Your task to perform on an android device: add a contact Image 0: 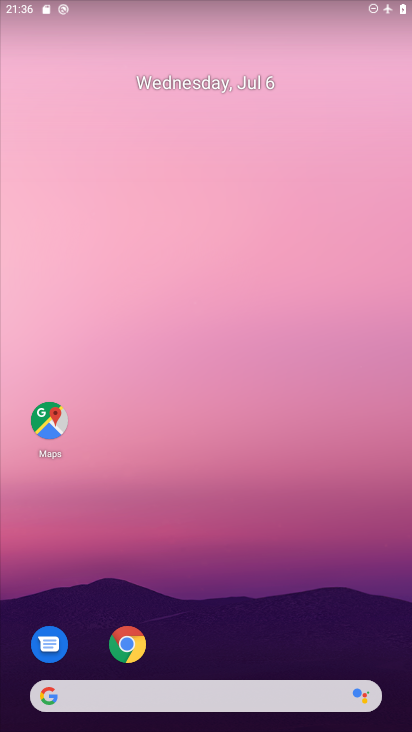
Step 0: drag from (213, 650) to (183, 231)
Your task to perform on an android device: add a contact Image 1: 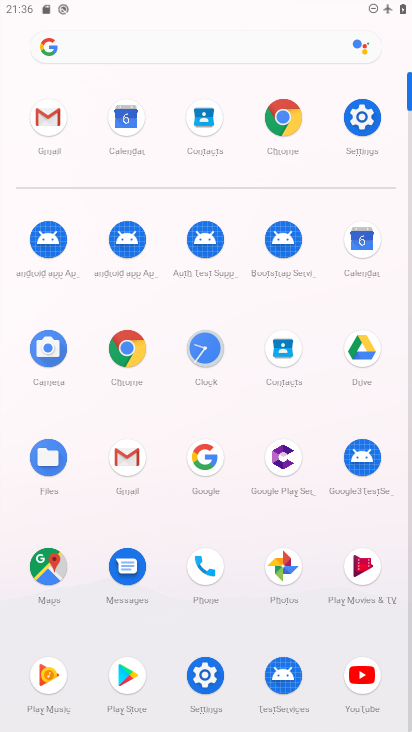
Step 1: click (278, 347)
Your task to perform on an android device: add a contact Image 2: 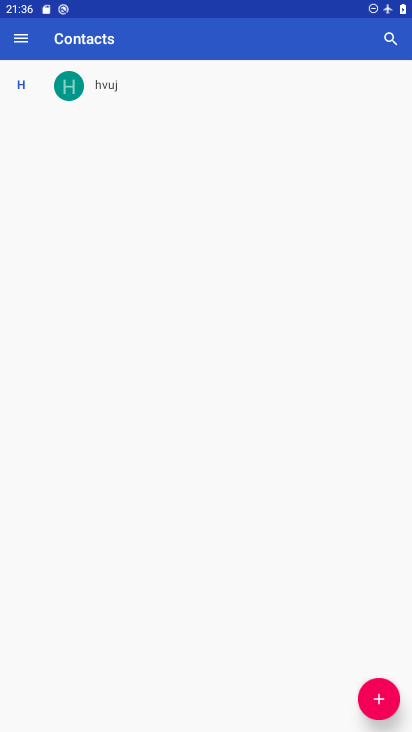
Step 2: click (368, 703)
Your task to perform on an android device: add a contact Image 3: 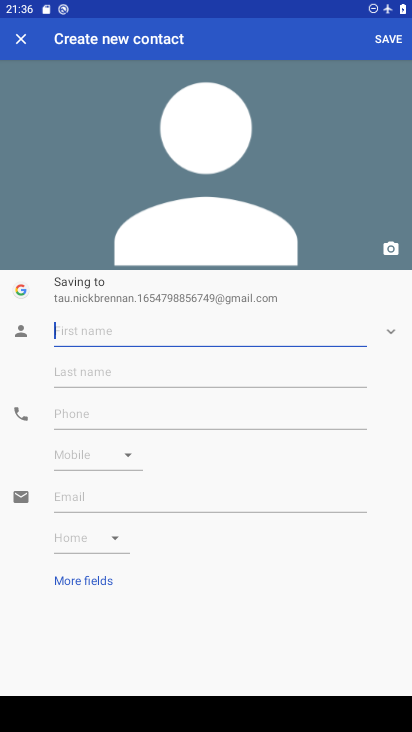
Step 3: type "fgngn"
Your task to perform on an android device: add a contact Image 4: 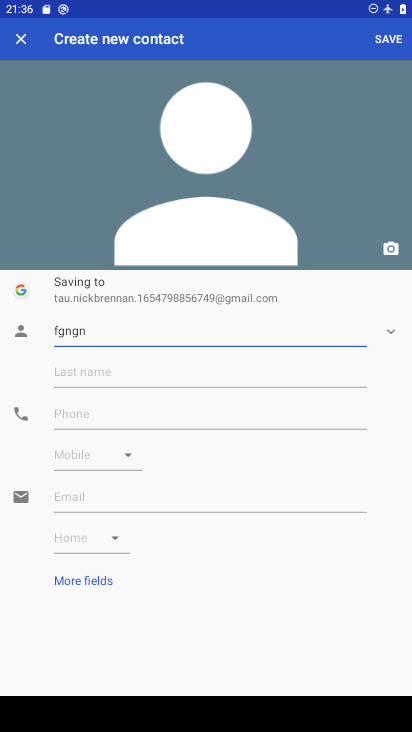
Step 4: click (63, 405)
Your task to perform on an android device: add a contact Image 5: 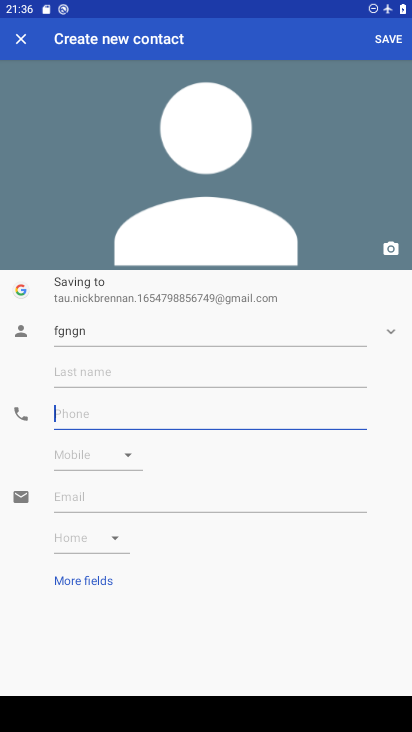
Step 5: type "86556757674"
Your task to perform on an android device: add a contact Image 6: 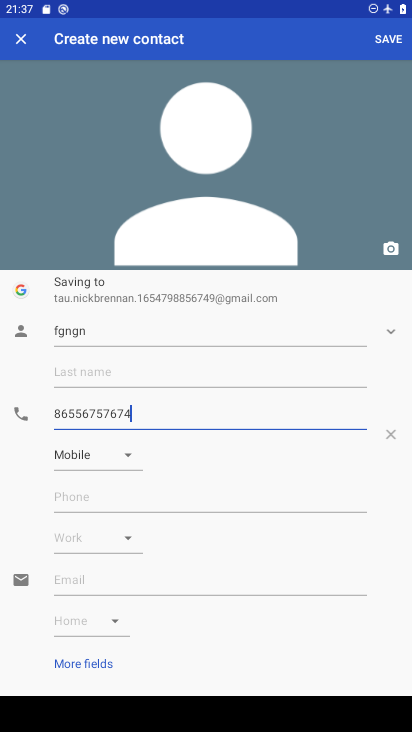
Step 6: click (384, 27)
Your task to perform on an android device: add a contact Image 7: 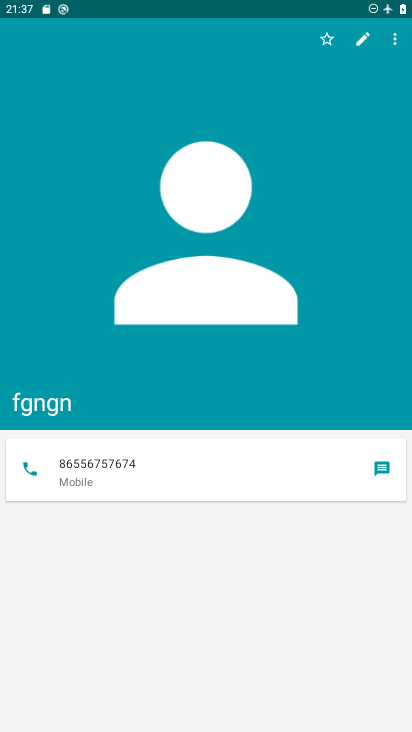
Step 7: task complete